Your task to perform on an android device: What's the weather today? Image 0: 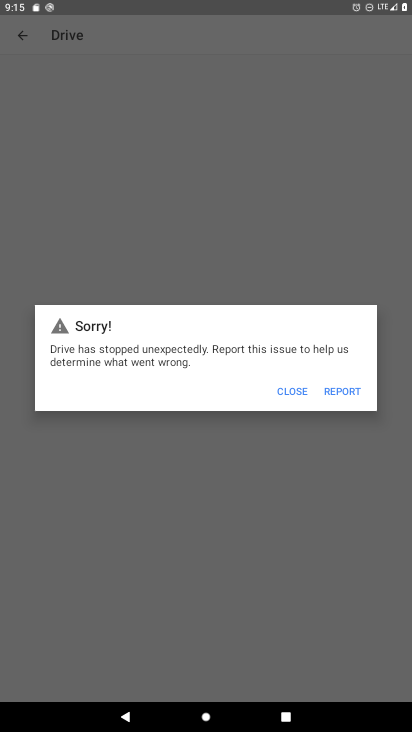
Step 0: press home button
Your task to perform on an android device: What's the weather today? Image 1: 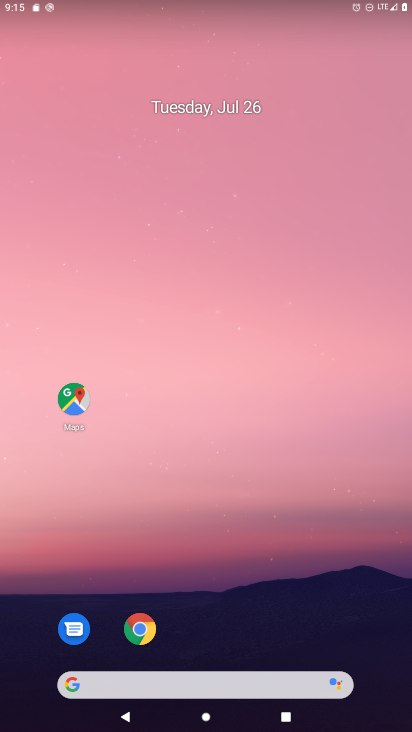
Step 1: drag from (237, 658) to (169, 119)
Your task to perform on an android device: What's the weather today? Image 2: 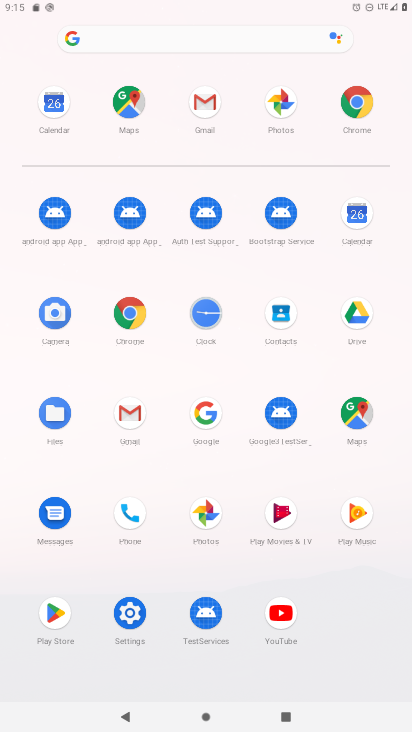
Step 2: click (357, 214)
Your task to perform on an android device: What's the weather today? Image 3: 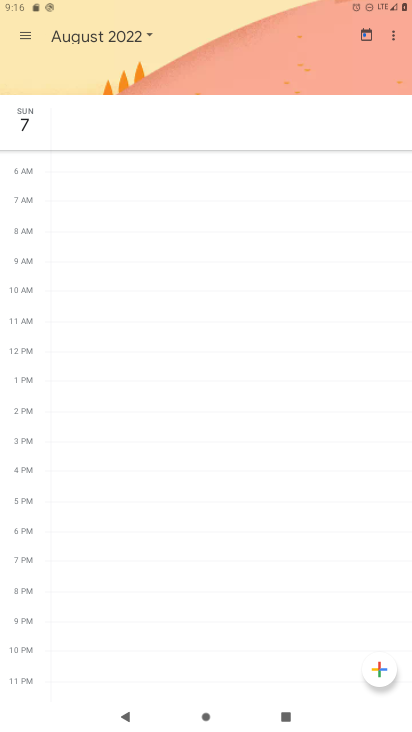
Step 3: press home button
Your task to perform on an android device: What's the weather today? Image 4: 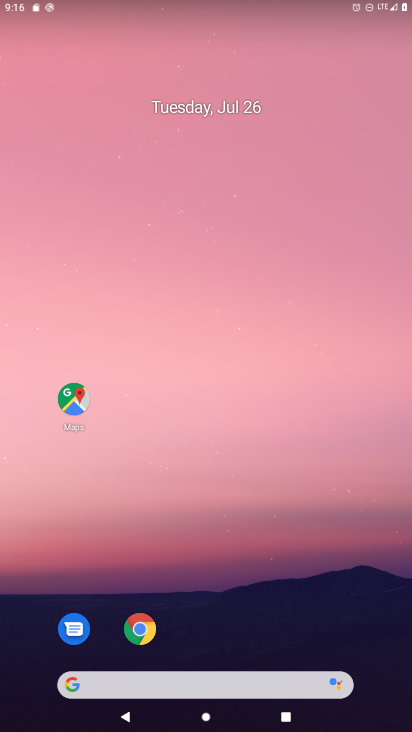
Step 4: click (224, 672)
Your task to perform on an android device: What's the weather today? Image 5: 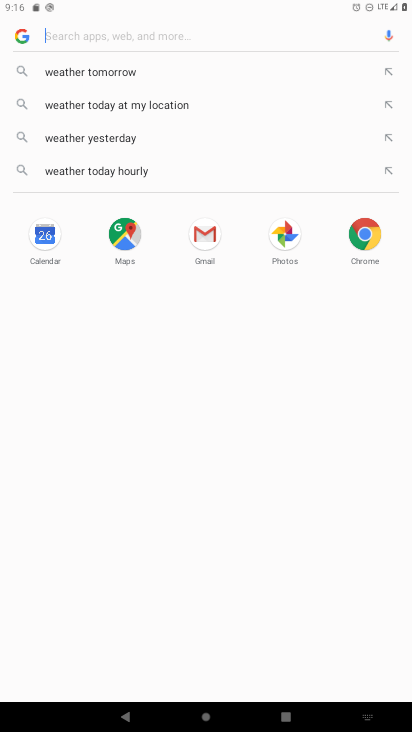
Step 5: click (91, 102)
Your task to perform on an android device: What's the weather today? Image 6: 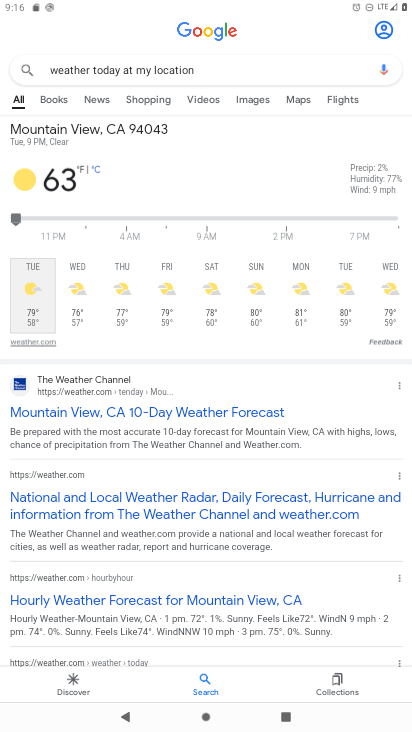
Step 6: click (42, 307)
Your task to perform on an android device: What's the weather today? Image 7: 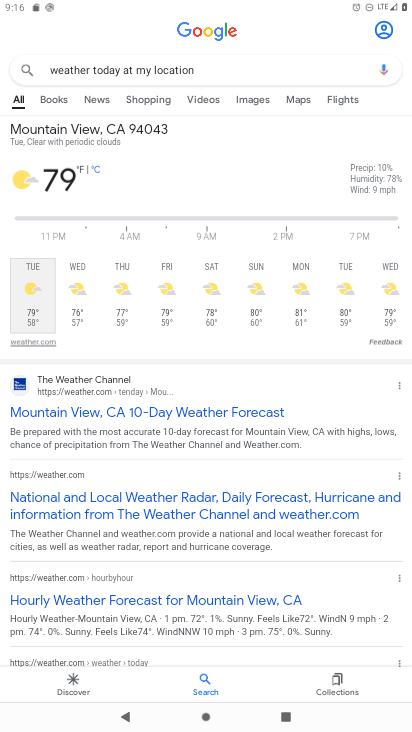
Step 7: click (28, 301)
Your task to perform on an android device: What's the weather today? Image 8: 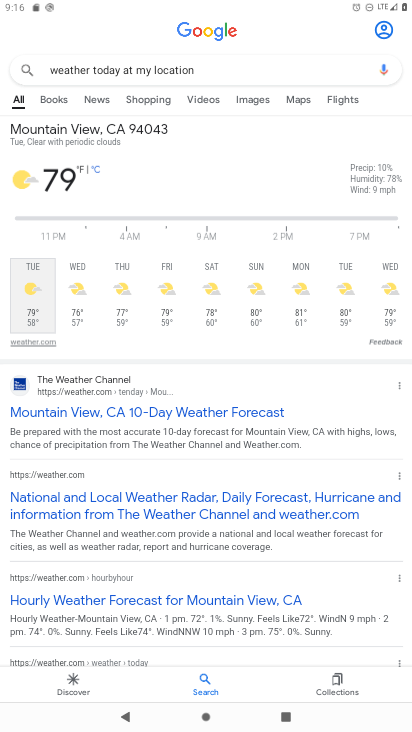
Step 8: task complete